Your task to perform on an android device: allow notifications from all sites in the chrome app Image 0: 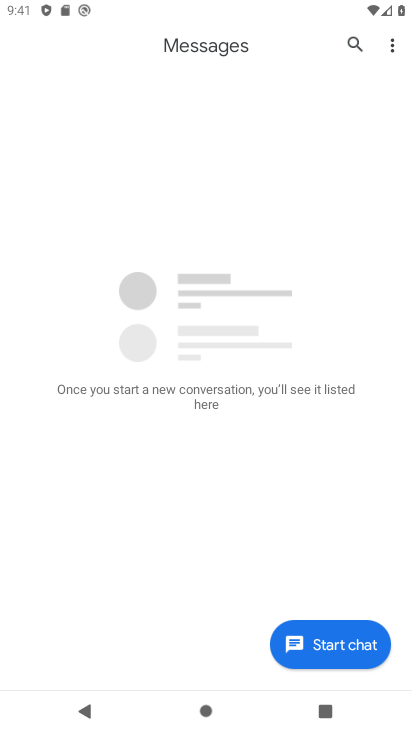
Step 0: press home button
Your task to perform on an android device: allow notifications from all sites in the chrome app Image 1: 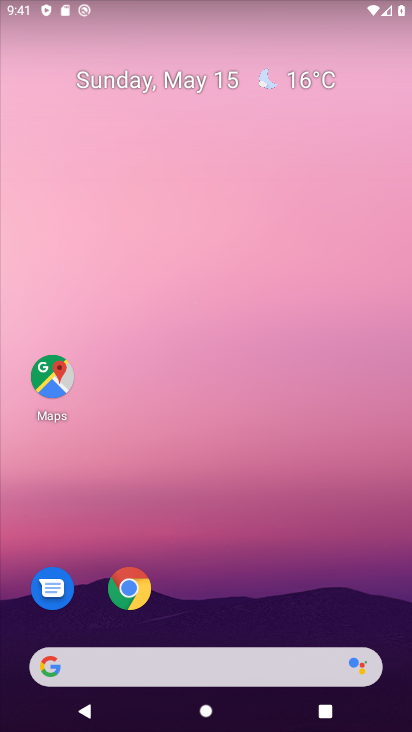
Step 1: click (133, 597)
Your task to perform on an android device: allow notifications from all sites in the chrome app Image 2: 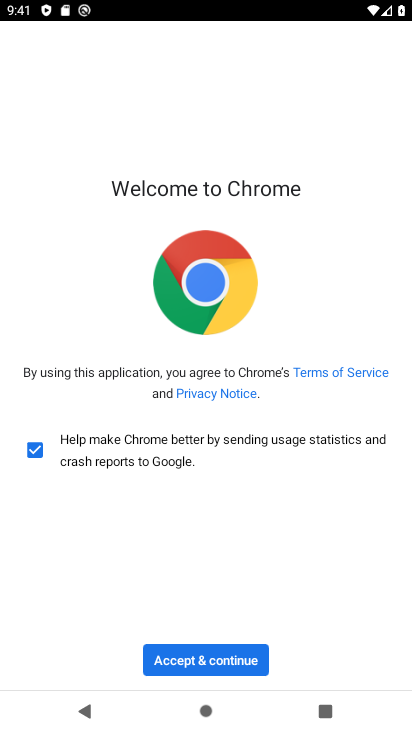
Step 2: click (230, 659)
Your task to perform on an android device: allow notifications from all sites in the chrome app Image 3: 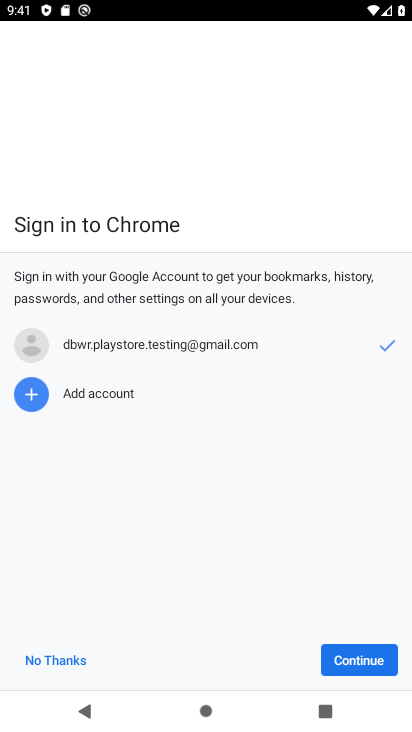
Step 3: click (351, 653)
Your task to perform on an android device: allow notifications from all sites in the chrome app Image 4: 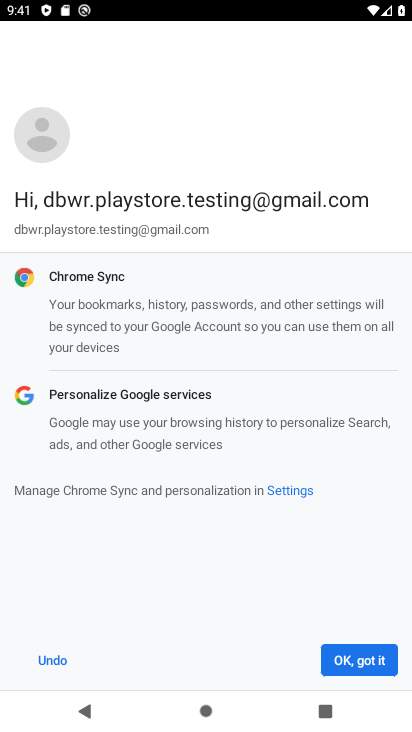
Step 4: click (351, 653)
Your task to perform on an android device: allow notifications from all sites in the chrome app Image 5: 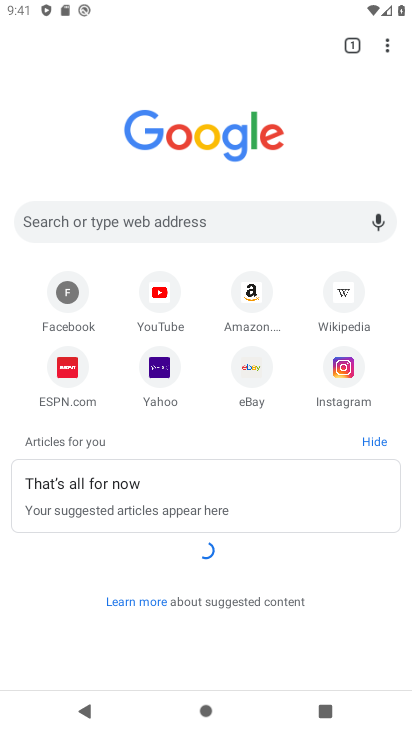
Step 5: click (401, 44)
Your task to perform on an android device: allow notifications from all sites in the chrome app Image 6: 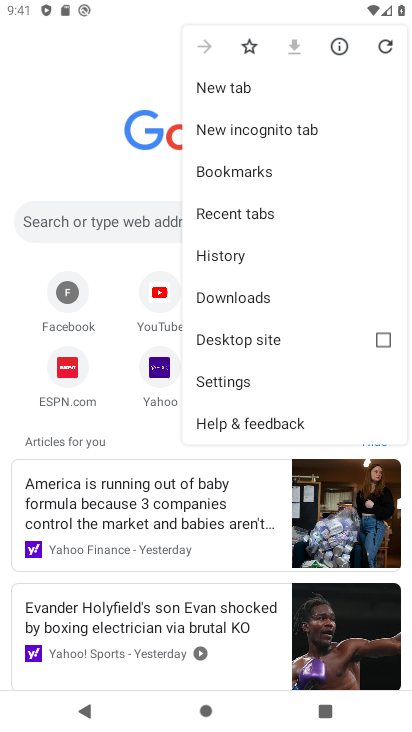
Step 6: click (237, 381)
Your task to perform on an android device: allow notifications from all sites in the chrome app Image 7: 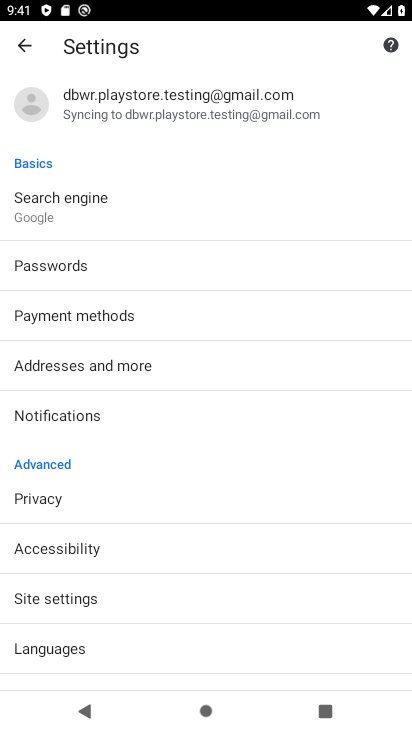
Step 7: click (47, 606)
Your task to perform on an android device: allow notifications from all sites in the chrome app Image 8: 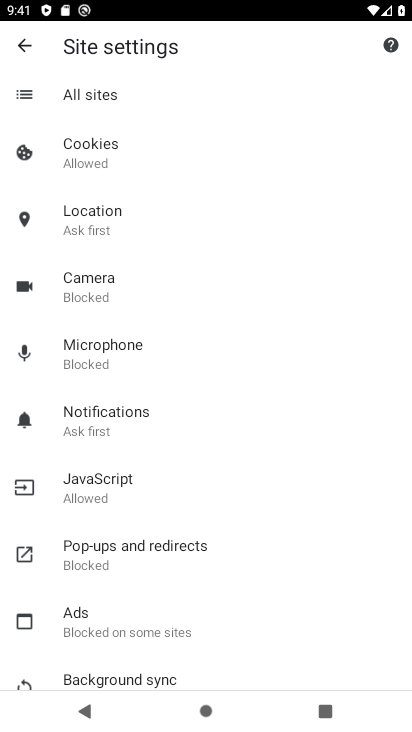
Step 8: drag from (144, 541) to (155, 449)
Your task to perform on an android device: allow notifications from all sites in the chrome app Image 9: 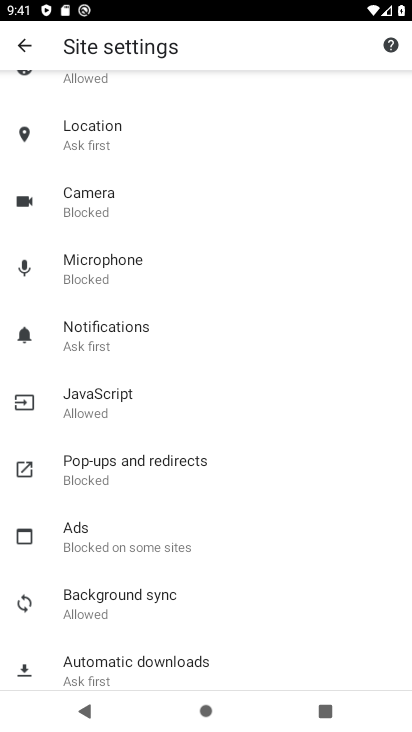
Step 9: click (148, 337)
Your task to perform on an android device: allow notifications from all sites in the chrome app Image 10: 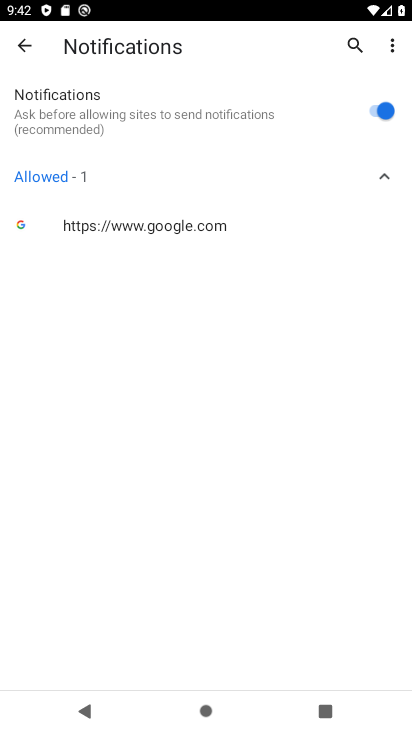
Step 10: task complete